Your task to perform on an android device: turn off translation in the chrome app Image 0: 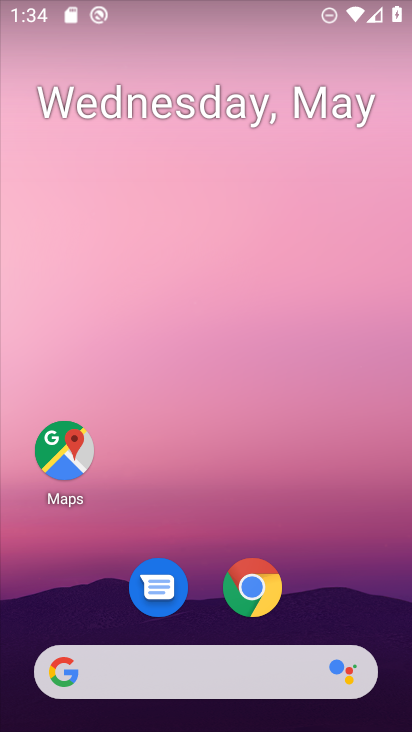
Step 0: click (244, 603)
Your task to perform on an android device: turn off translation in the chrome app Image 1: 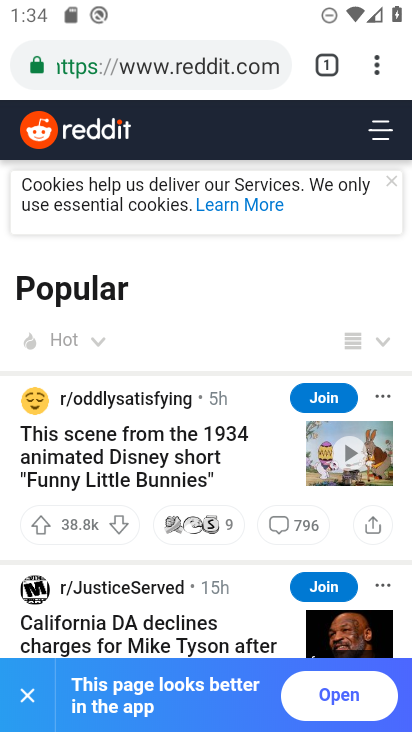
Step 1: click (372, 73)
Your task to perform on an android device: turn off translation in the chrome app Image 2: 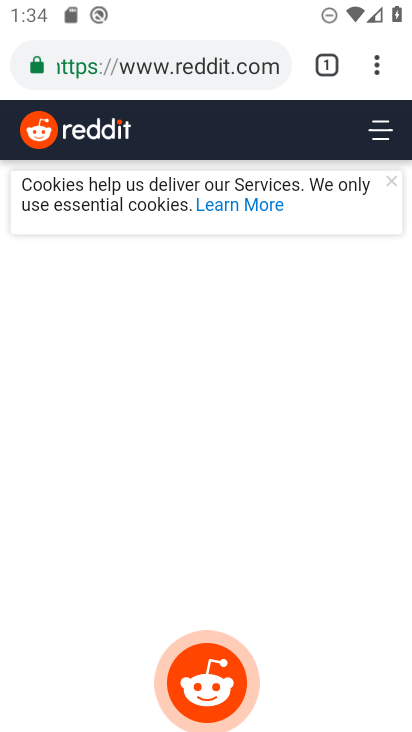
Step 2: click (371, 72)
Your task to perform on an android device: turn off translation in the chrome app Image 3: 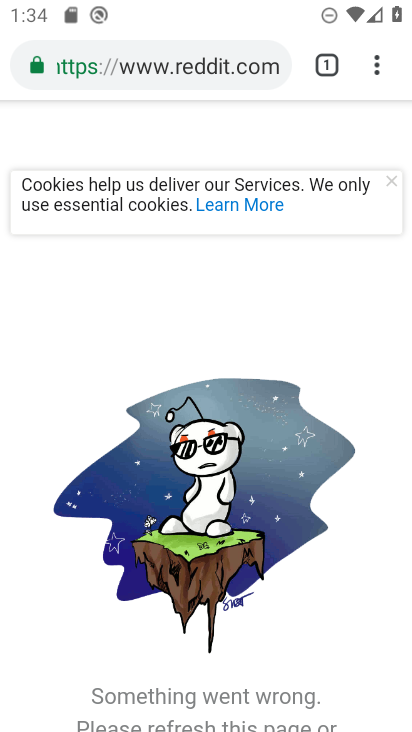
Step 3: click (374, 68)
Your task to perform on an android device: turn off translation in the chrome app Image 4: 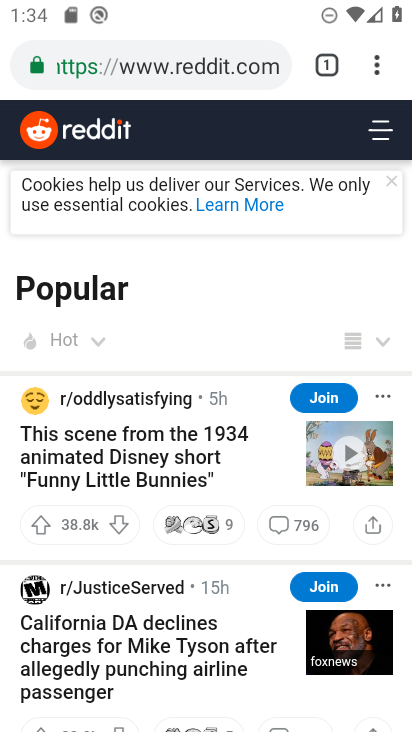
Step 4: click (376, 66)
Your task to perform on an android device: turn off translation in the chrome app Image 5: 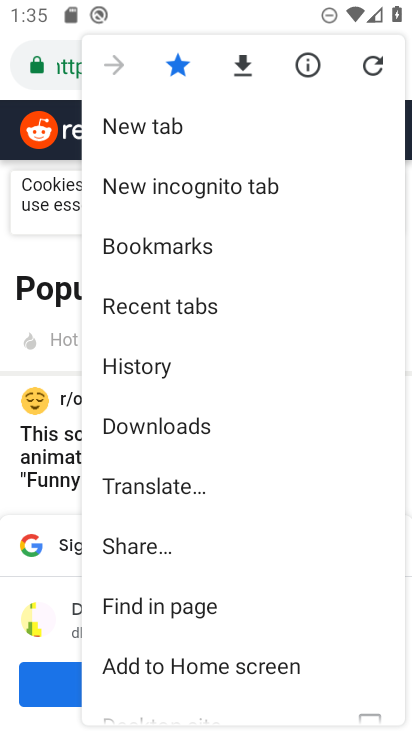
Step 5: drag from (245, 616) to (256, 340)
Your task to perform on an android device: turn off translation in the chrome app Image 6: 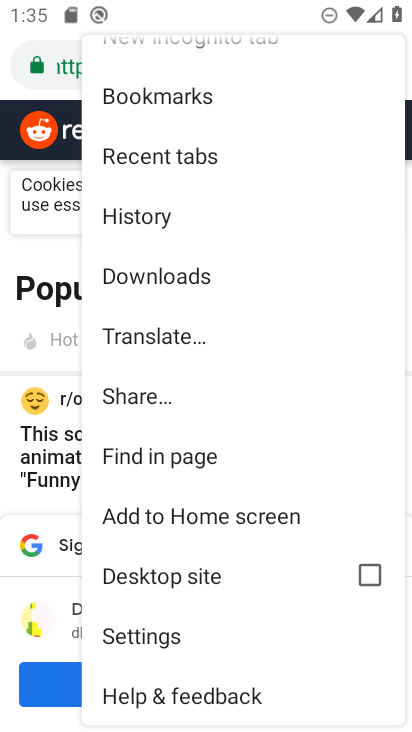
Step 6: click (119, 643)
Your task to perform on an android device: turn off translation in the chrome app Image 7: 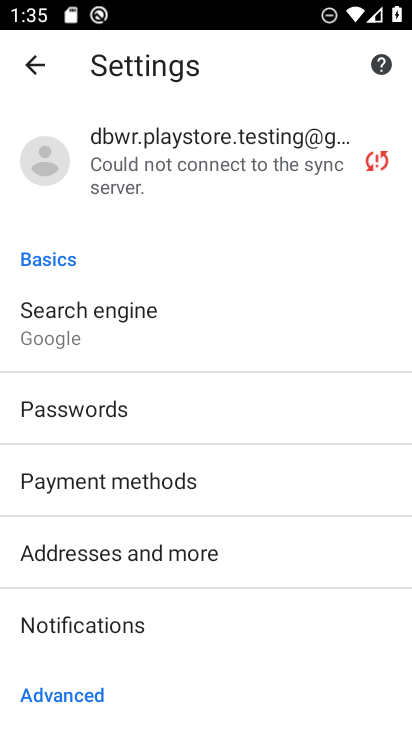
Step 7: drag from (195, 601) to (195, 323)
Your task to perform on an android device: turn off translation in the chrome app Image 8: 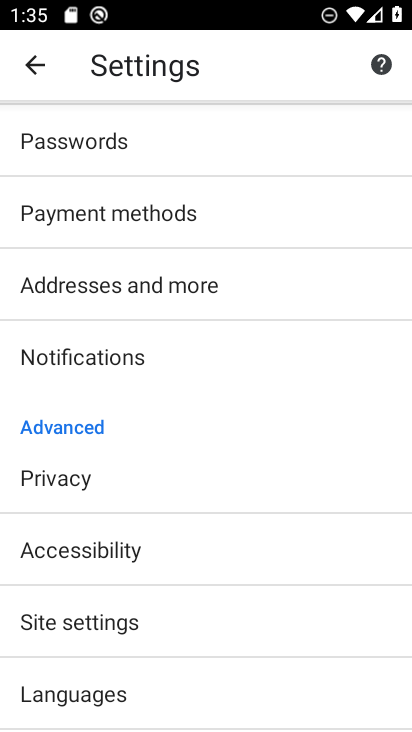
Step 8: drag from (163, 650) to (176, 308)
Your task to perform on an android device: turn off translation in the chrome app Image 9: 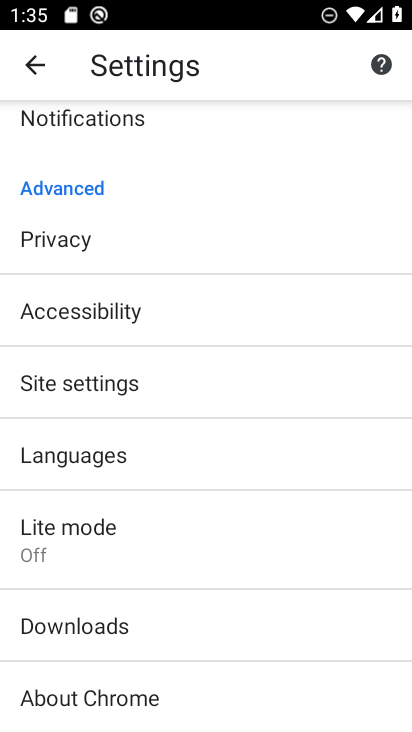
Step 9: click (70, 467)
Your task to perform on an android device: turn off translation in the chrome app Image 10: 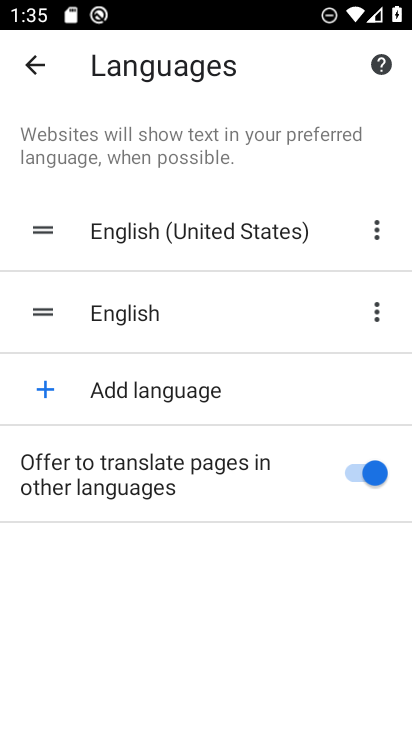
Step 10: click (363, 474)
Your task to perform on an android device: turn off translation in the chrome app Image 11: 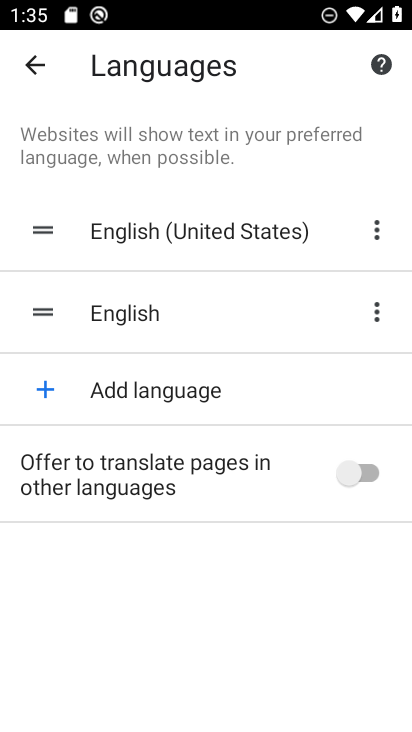
Step 11: task complete